Your task to perform on an android device: Open calendar and show me the fourth week of next month Image 0: 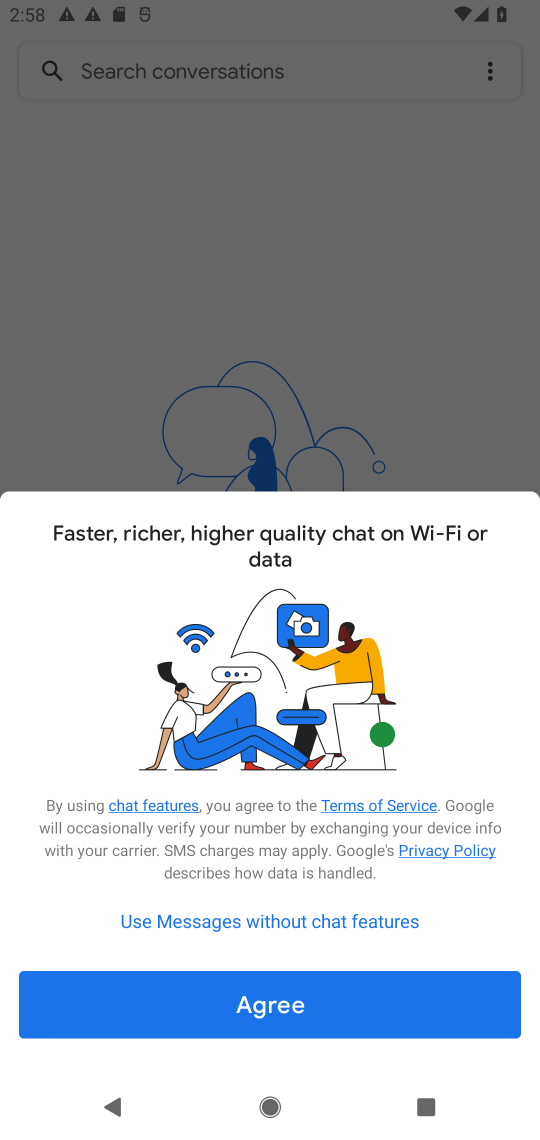
Step 0: press home button
Your task to perform on an android device: Open calendar and show me the fourth week of next month Image 1: 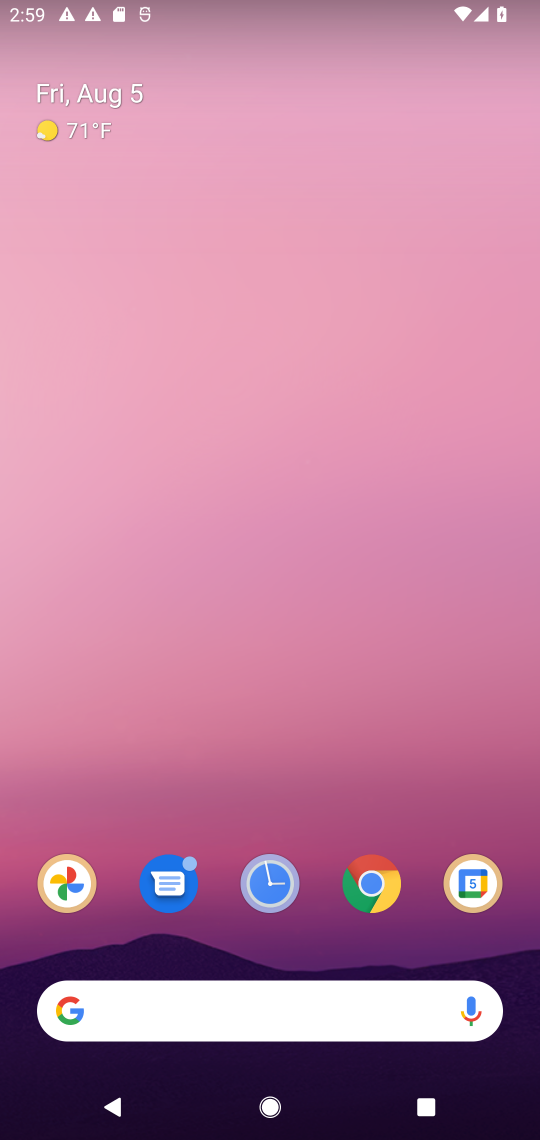
Step 1: click (471, 876)
Your task to perform on an android device: Open calendar and show me the fourth week of next month Image 2: 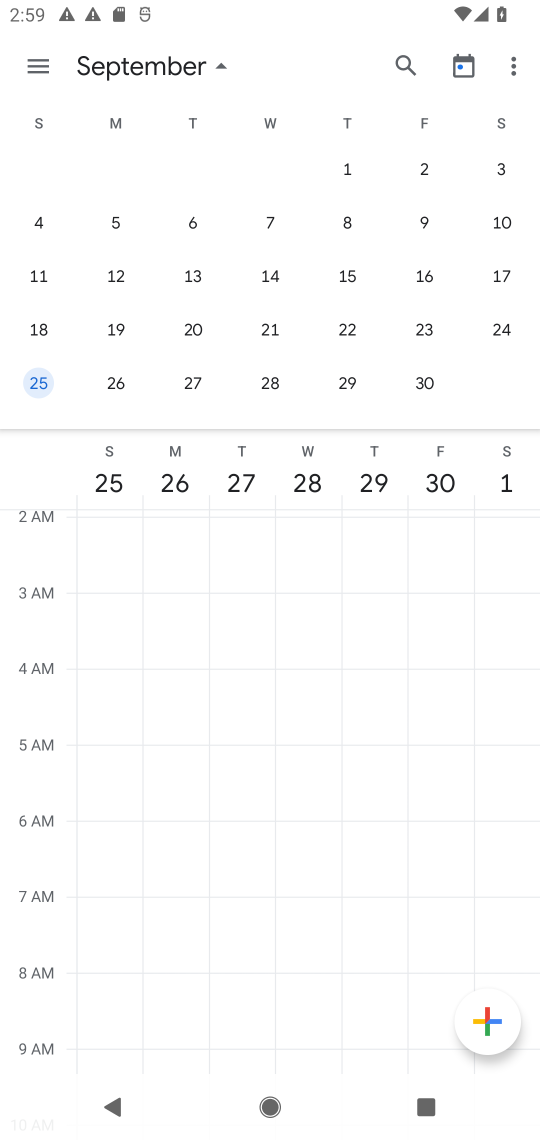
Step 2: task complete